Your task to perform on an android device: turn on improve location accuracy Image 0: 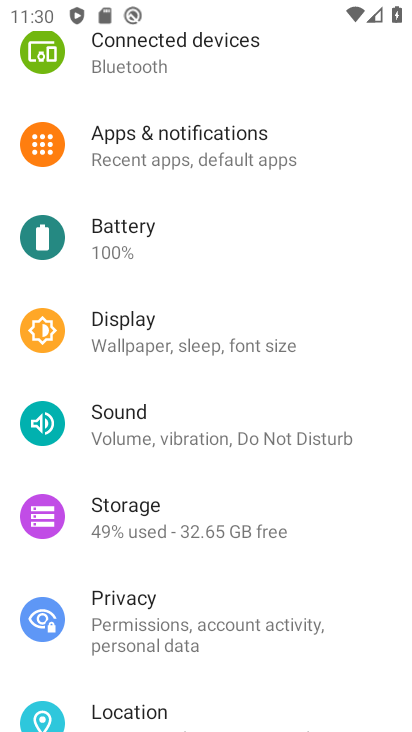
Step 0: drag from (265, 541) to (228, 243)
Your task to perform on an android device: turn on improve location accuracy Image 1: 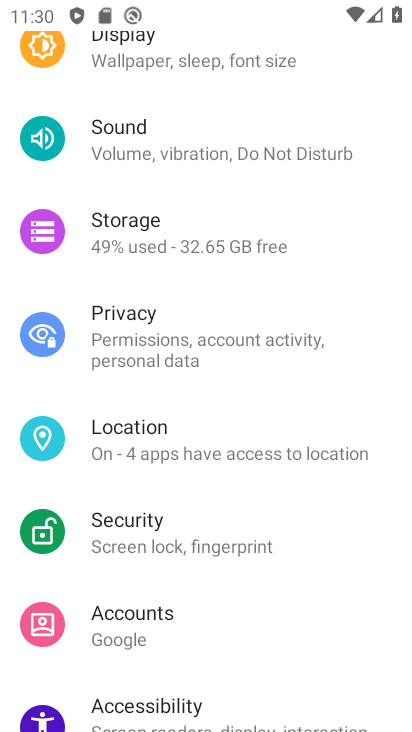
Step 1: click (212, 439)
Your task to perform on an android device: turn on improve location accuracy Image 2: 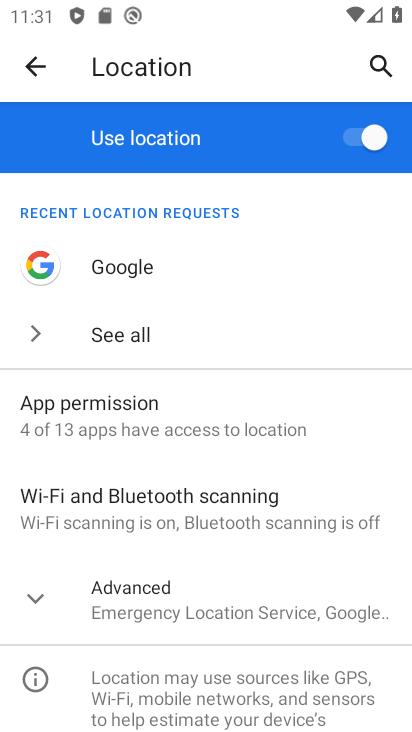
Step 2: drag from (210, 551) to (231, 251)
Your task to perform on an android device: turn on improve location accuracy Image 3: 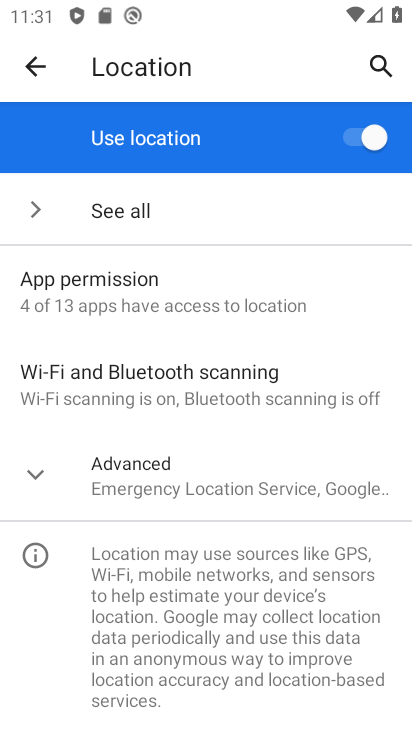
Step 3: click (32, 466)
Your task to perform on an android device: turn on improve location accuracy Image 4: 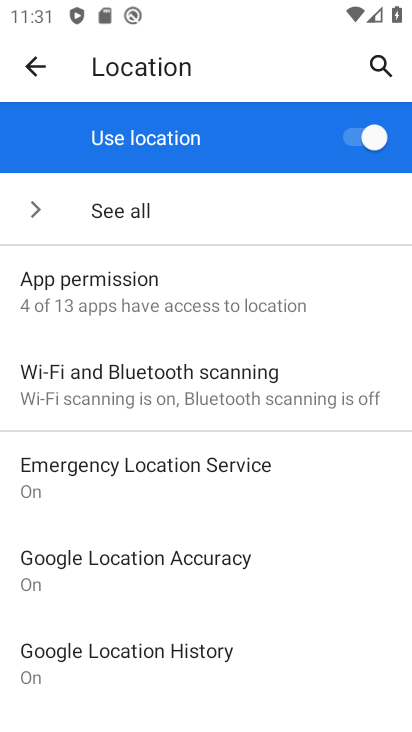
Step 4: task complete